Your task to perform on an android device: change the upload size in google photos Image 0: 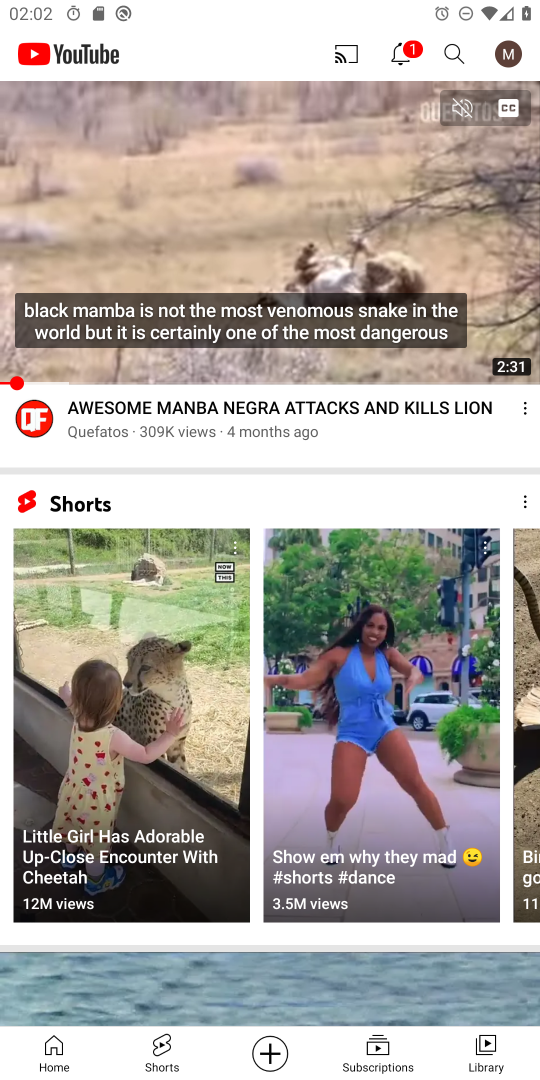
Step 0: press home button
Your task to perform on an android device: change the upload size in google photos Image 1: 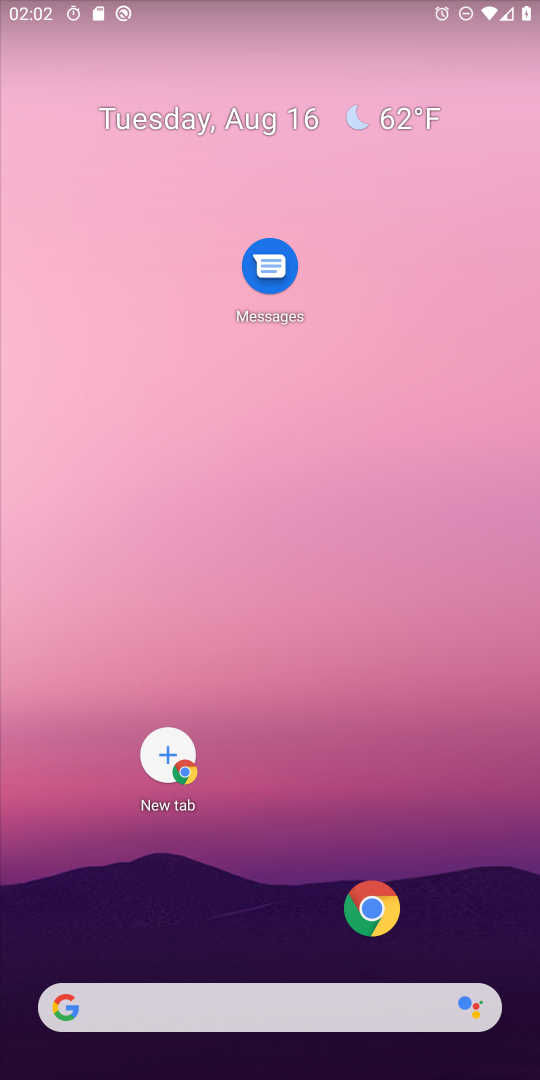
Step 1: drag from (281, 917) to (170, 142)
Your task to perform on an android device: change the upload size in google photos Image 2: 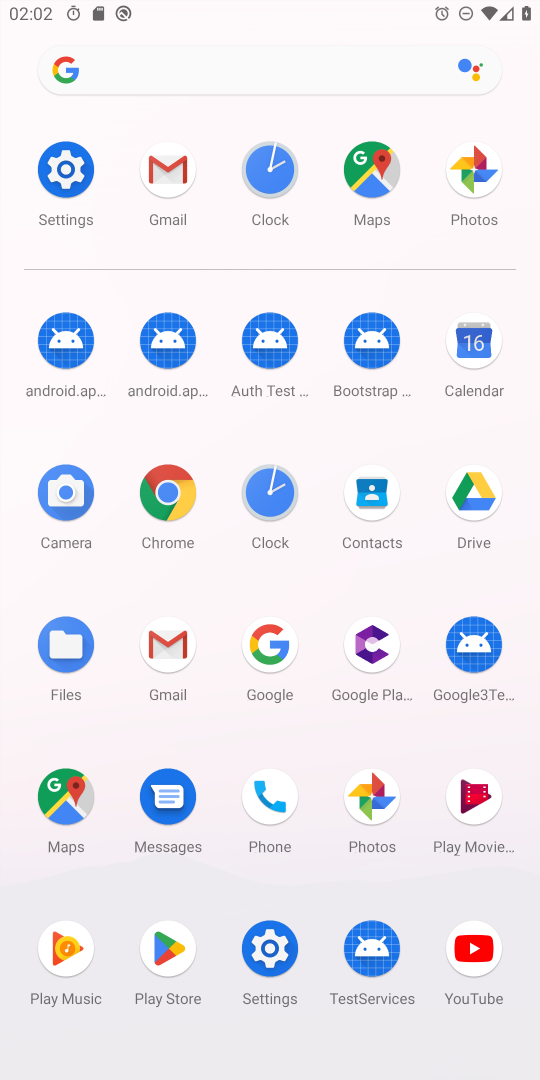
Step 2: click (479, 228)
Your task to perform on an android device: change the upload size in google photos Image 3: 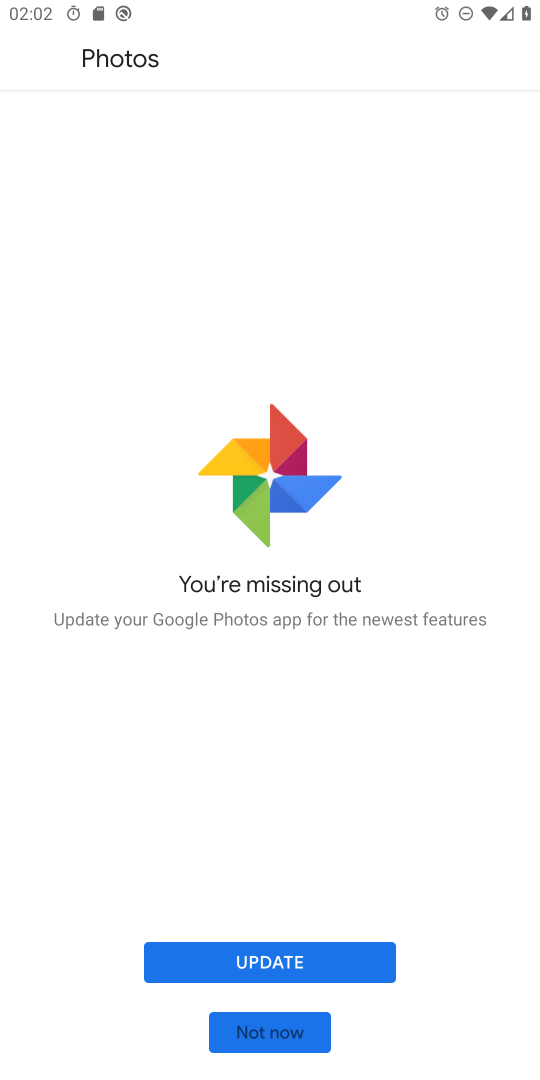
Step 3: click (271, 1022)
Your task to perform on an android device: change the upload size in google photos Image 4: 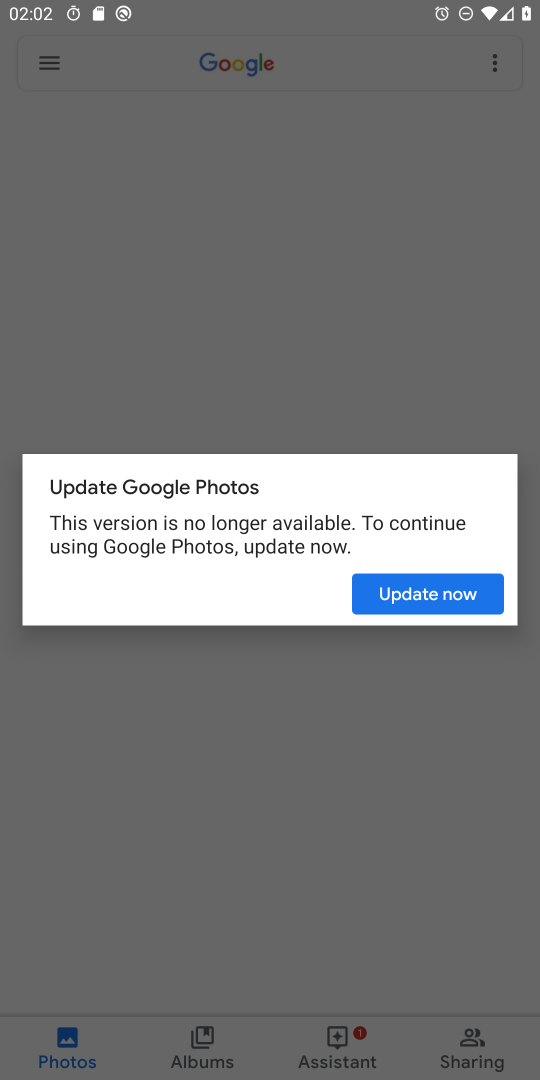
Step 4: click (434, 592)
Your task to perform on an android device: change the upload size in google photos Image 5: 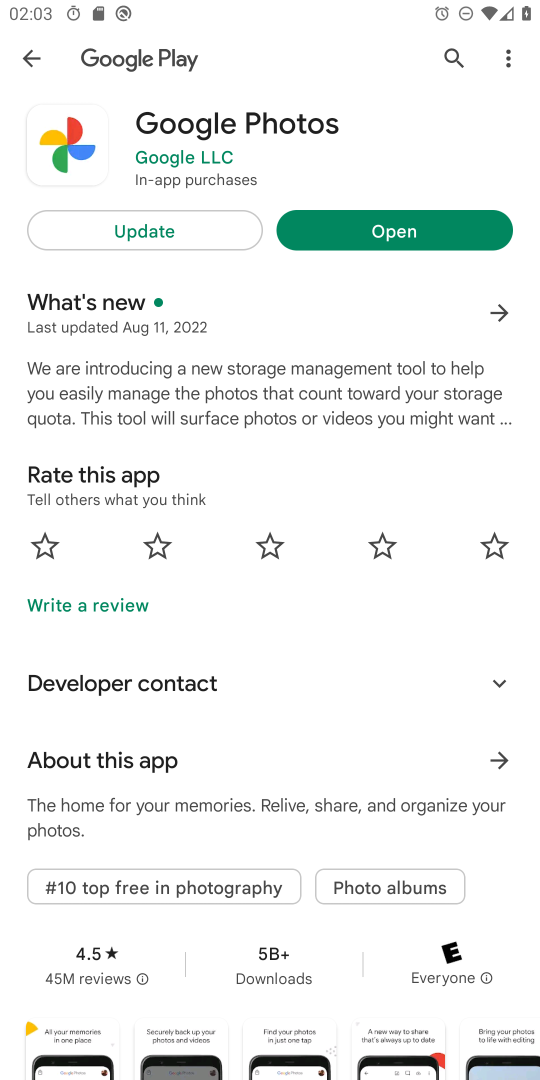
Step 5: click (376, 247)
Your task to perform on an android device: change the upload size in google photos Image 6: 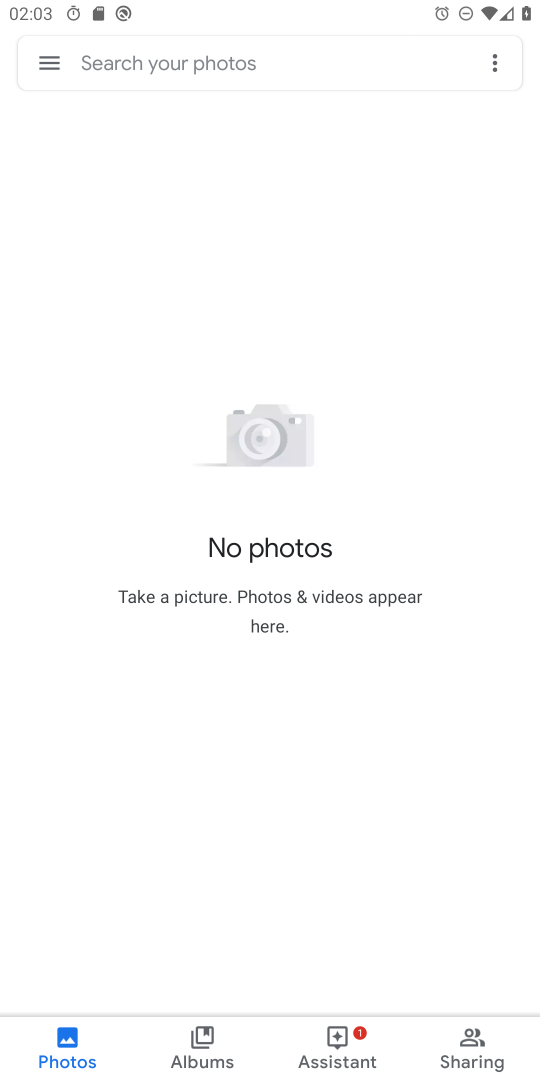
Step 6: click (52, 70)
Your task to perform on an android device: change the upload size in google photos Image 7: 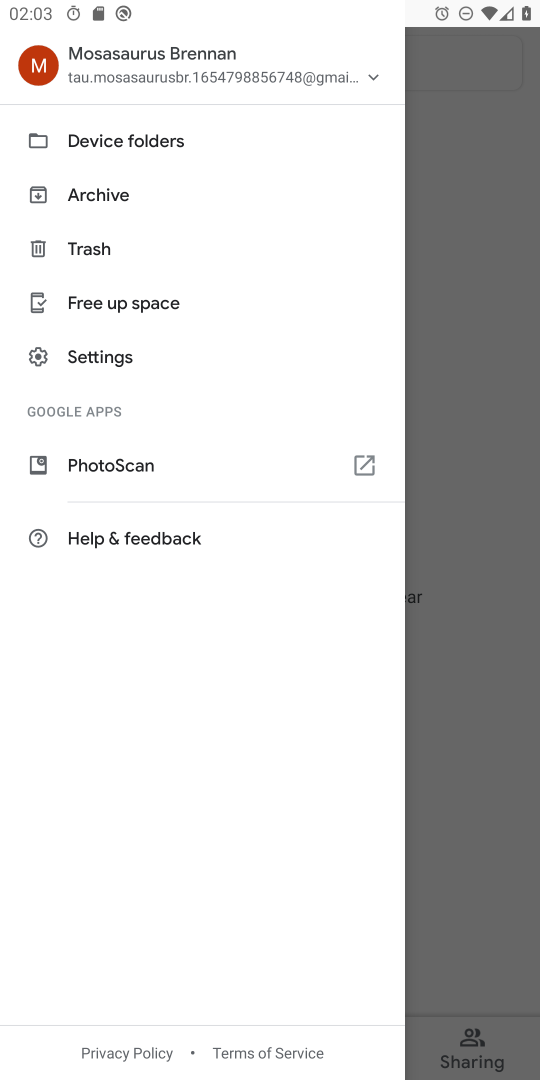
Step 7: click (152, 363)
Your task to perform on an android device: change the upload size in google photos Image 8: 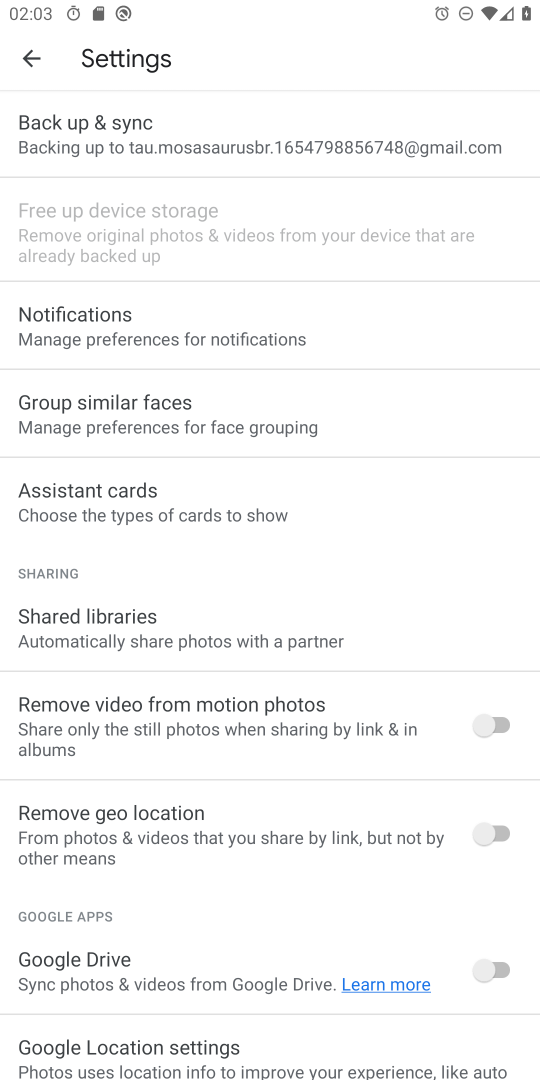
Step 8: click (233, 157)
Your task to perform on an android device: change the upload size in google photos Image 9: 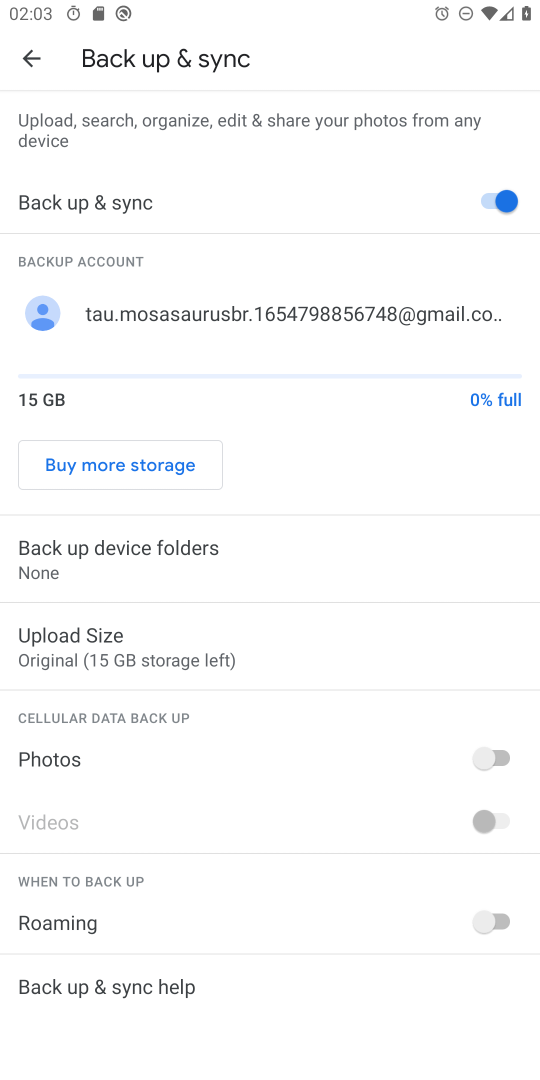
Step 9: click (150, 659)
Your task to perform on an android device: change the upload size in google photos Image 10: 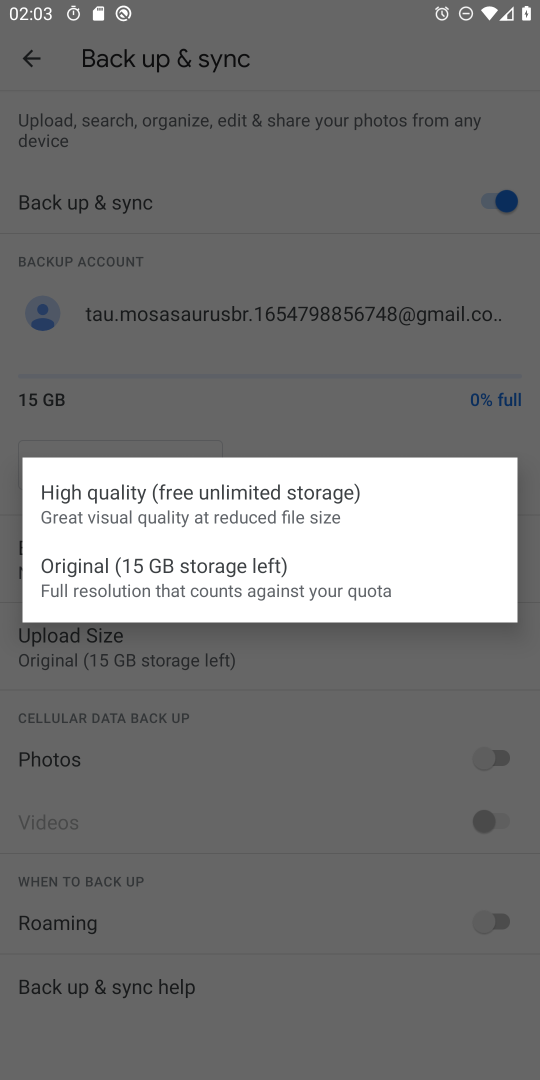
Step 10: click (217, 511)
Your task to perform on an android device: change the upload size in google photos Image 11: 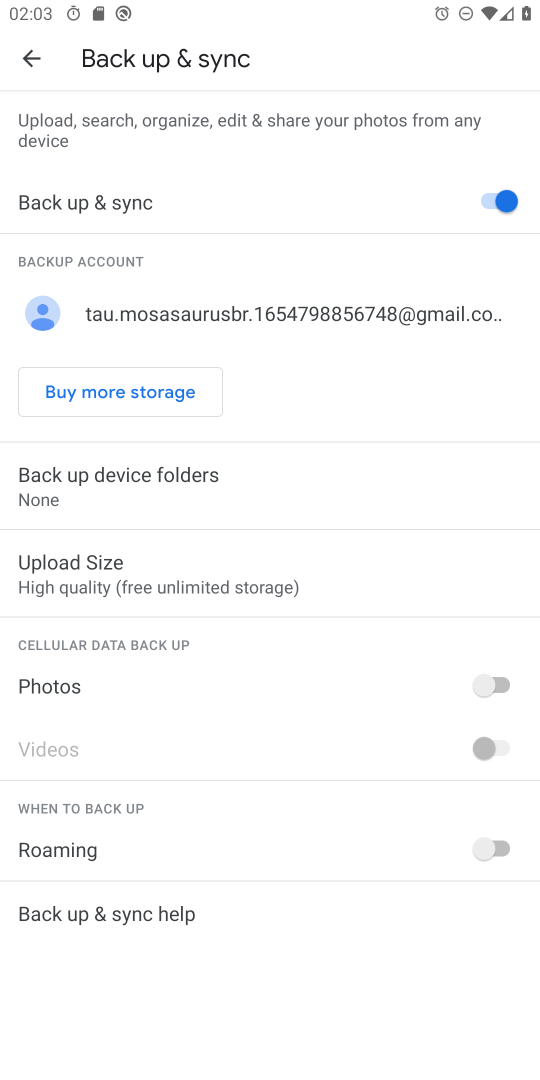
Step 11: task complete